Your task to perform on an android device: open a bookmark in the chrome app Image 0: 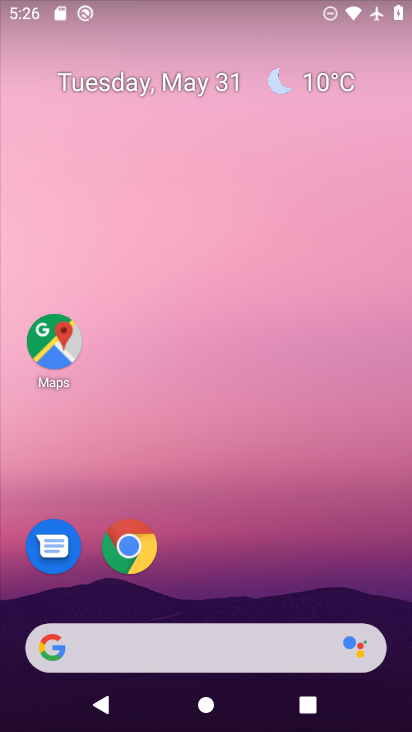
Step 0: drag from (247, 432) to (180, 21)
Your task to perform on an android device: open a bookmark in the chrome app Image 1: 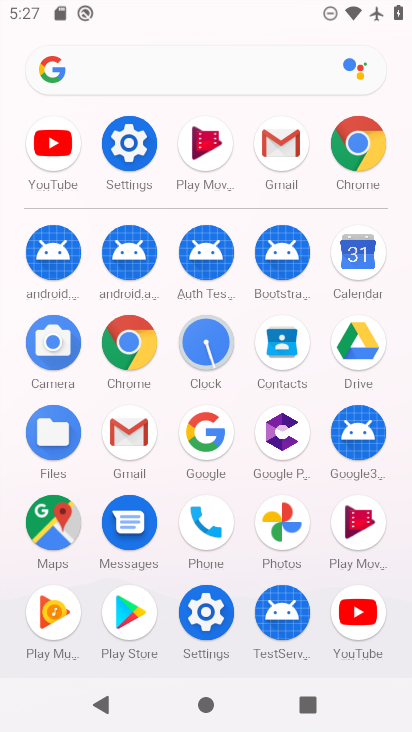
Step 1: click (385, 143)
Your task to perform on an android device: open a bookmark in the chrome app Image 2: 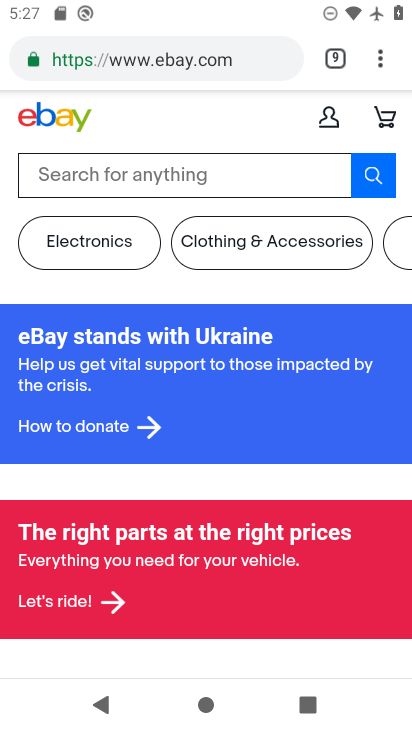
Step 2: click (377, 52)
Your task to perform on an android device: open a bookmark in the chrome app Image 3: 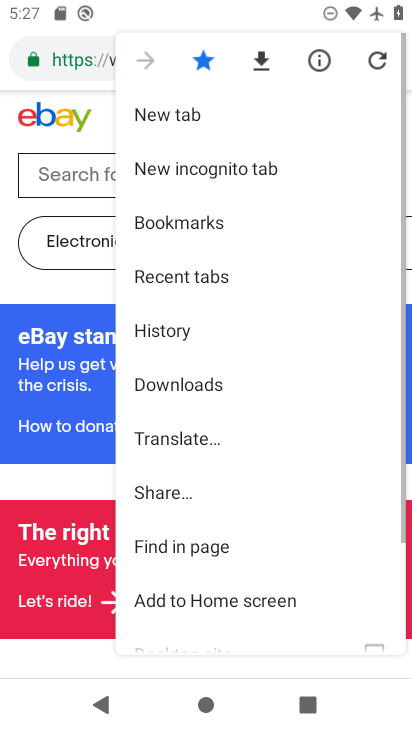
Step 3: click (269, 220)
Your task to perform on an android device: open a bookmark in the chrome app Image 4: 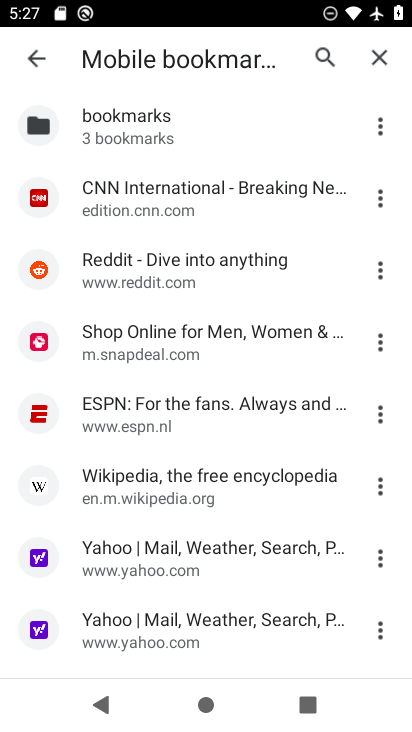
Step 4: click (119, 270)
Your task to perform on an android device: open a bookmark in the chrome app Image 5: 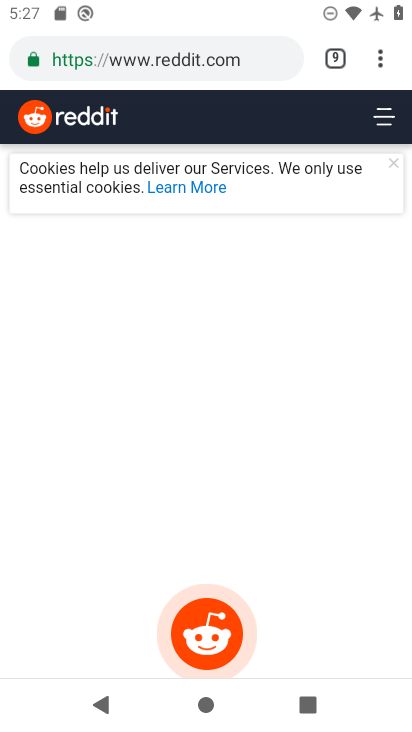
Step 5: task complete